Your task to perform on an android device: Open privacy settings Image 0: 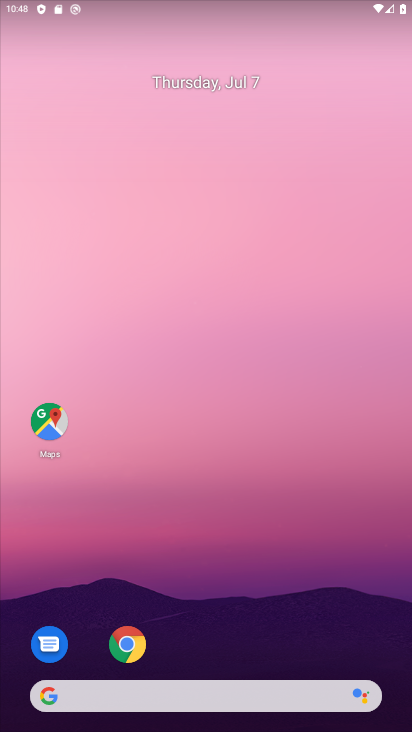
Step 0: drag from (237, 724) to (207, 401)
Your task to perform on an android device: Open privacy settings Image 1: 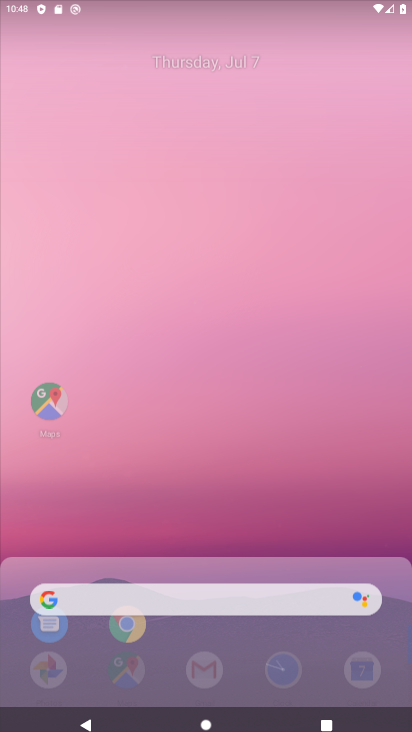
Step 1: click (191, 137)
Your task to perform on an android device: Open privacy settings Image 2: 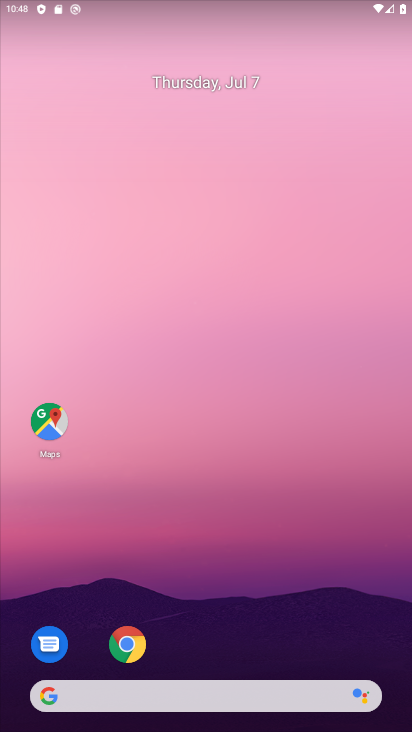
Step 2: drag from (249, 726) to (258, 56)
Your task to perform on an android device: Open privacy settings Image 3: 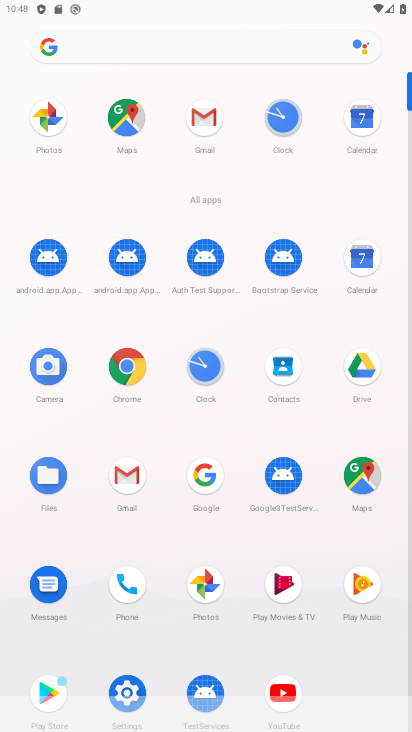
Step 3: click (128, 688)
Your task to perform on an android device: Open privacy settings Image 4: 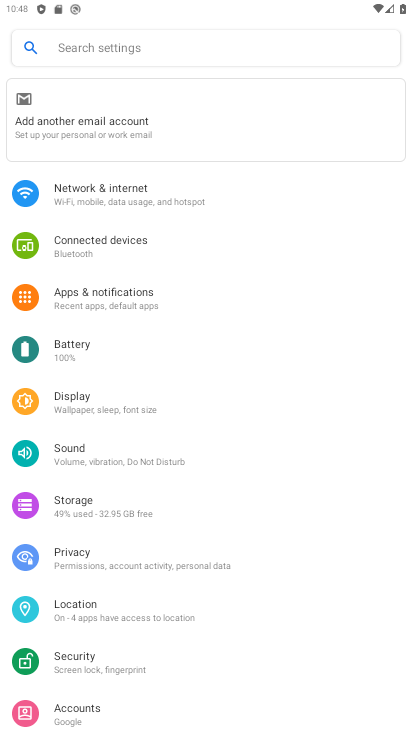
Step 4: click (85, 552)
Your task to perform on an android device: Open privacy settings Image 5: 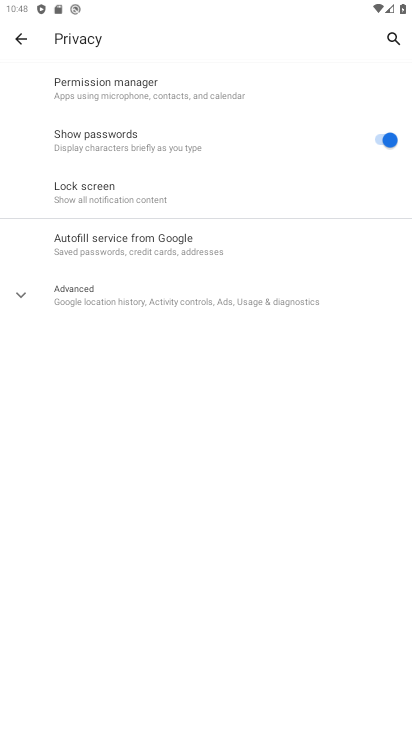
Step 5: task complete